Your task to perform on an android device: Open the Play Movies app and select the watchlist tab. Image 0: 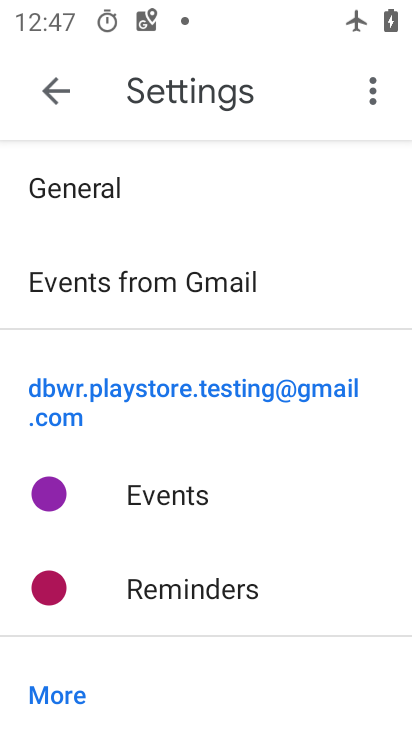
Step 0: press home button
Your task to perform on an android device: Open the Play Movies app and select the watchlist tab. Image 1: 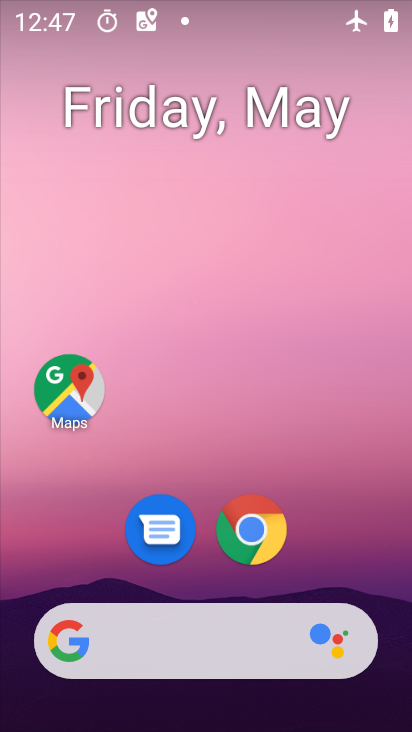
Step 1: drag from (252, 637) to (202, 73)
Your task to perform on an android device: Open the Play Movies app and select the watchlist tab. Image 2: 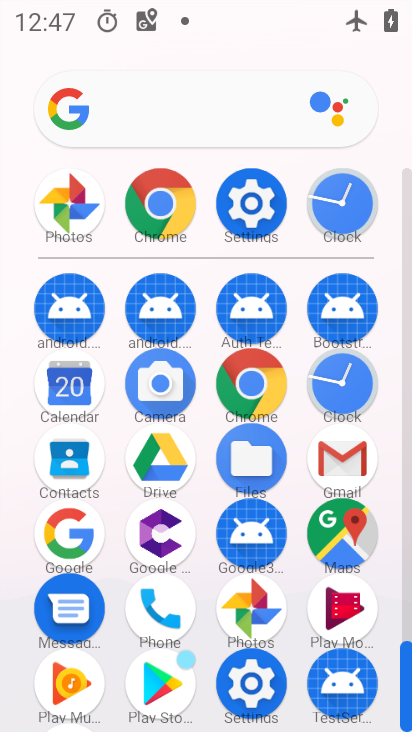
Step 2: drag from (284, 535) to (128, 100)
Your task to perform on an android device: Open the Play Movies app and select the watchlist tab. Image 3: 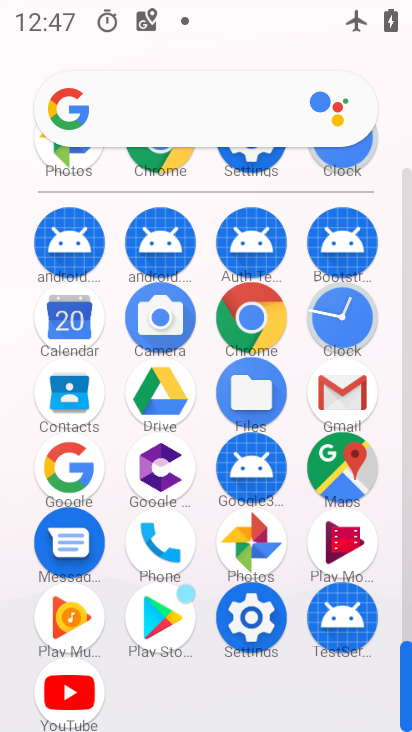
Step 3: click (357, 550)
Your task to perform on an android device: Open the Play Movies app and select the watchlist tab. Image 4: 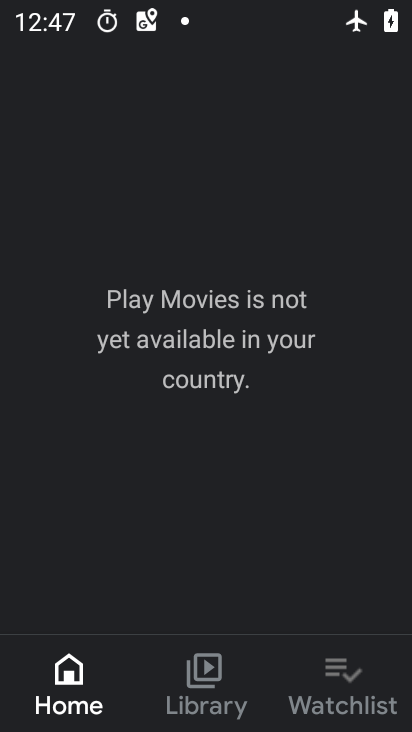
Step 4: click (357, 700)
Your task to perform on an android device: Open the Play Movies app and select the watchlist tab. Image 5: 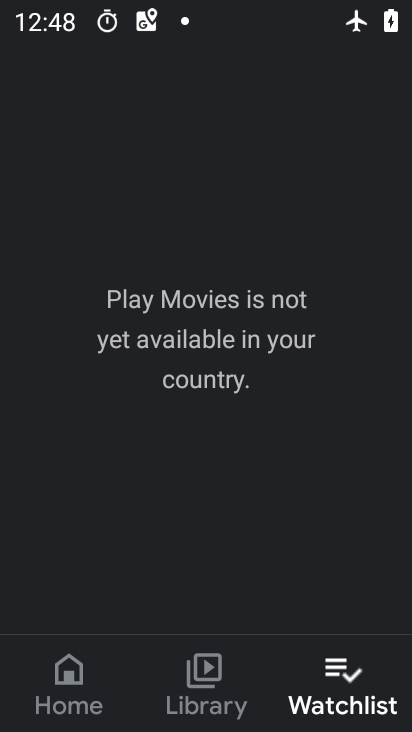
Step 5: task complete